Your task to perform on an android device: turn on improve location accuracy Image 0: 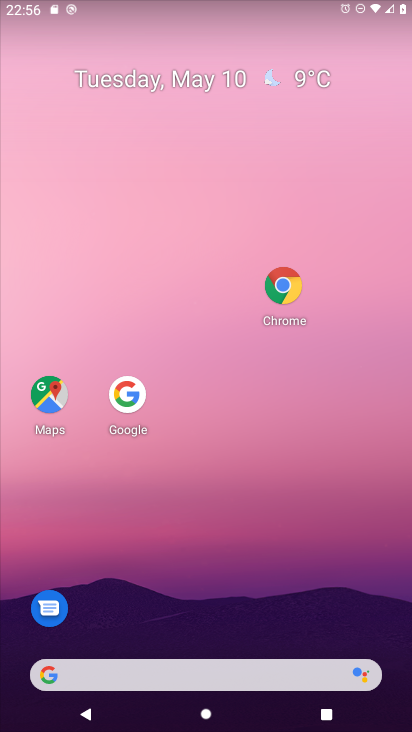
Step 0: drag from (163, 675) to (266, 227)
Your task to perform on an android device: turn on improve location accuracy Image 1: 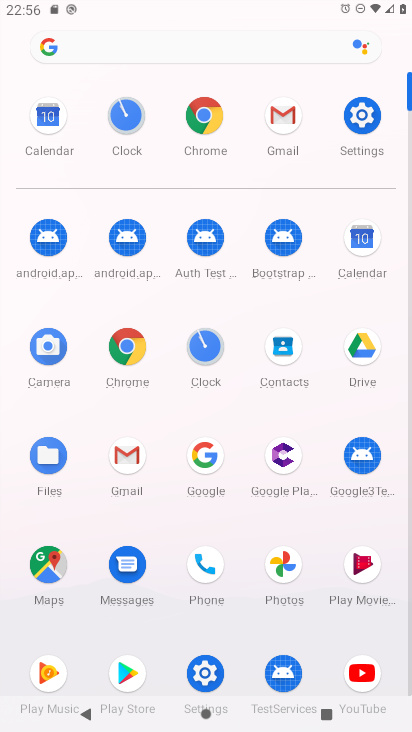
Step 1: click (363, 124)
Your task to perform on an android device: turn on improve location accuracy Image 2: 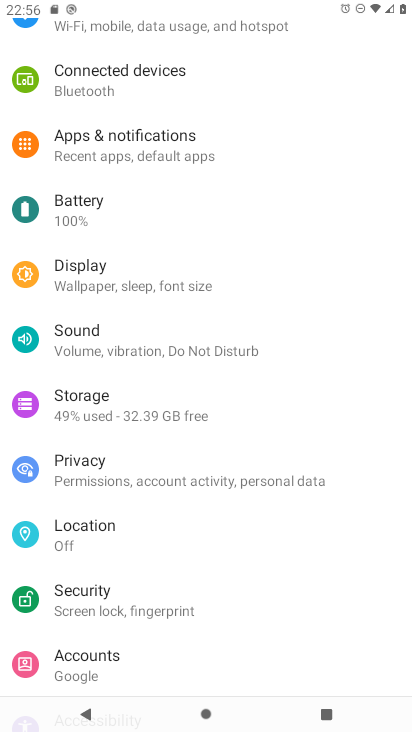
Step 2: click (97, 528)
Your task to perform on an android device: turn on improve location accuracy Image 3: 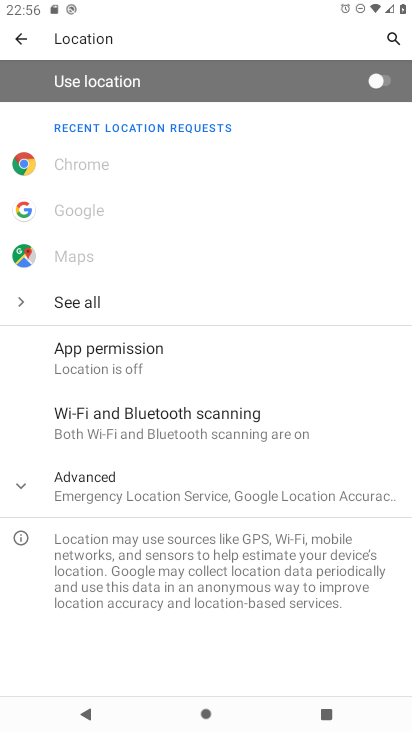
Step 3: click (111, 471)
Your task to perform on an android device: turn on improve location accuracy Image 4: 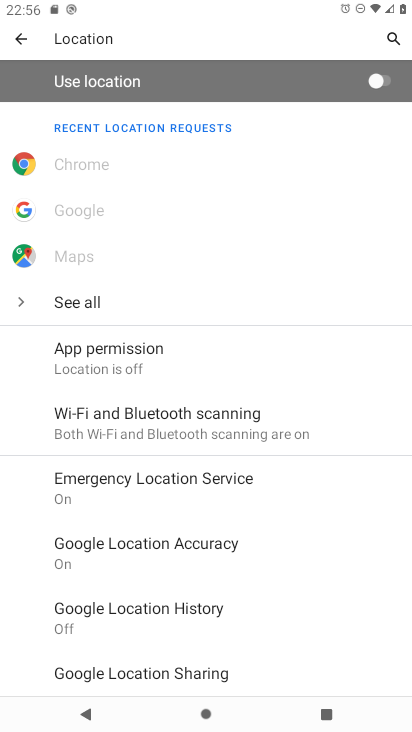
Step 4: click (156, 545)
Your task to perform on an android device: turn on improve location accuracy Image 5: 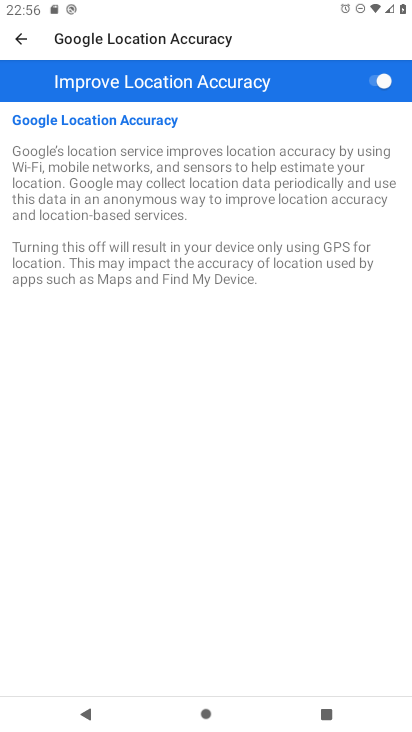
Step 5: task complete